Your task to perform on an android device: empty trash in the gmail app Image 0: 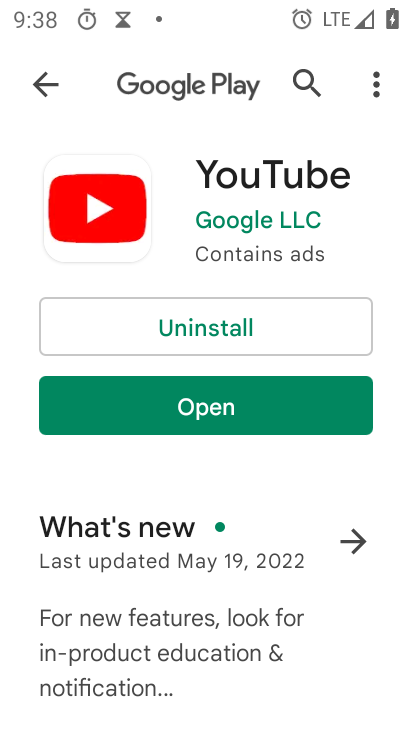
Step 0: press home button
Your task to perform on an android device: empty trash in the gmail app Image 1: 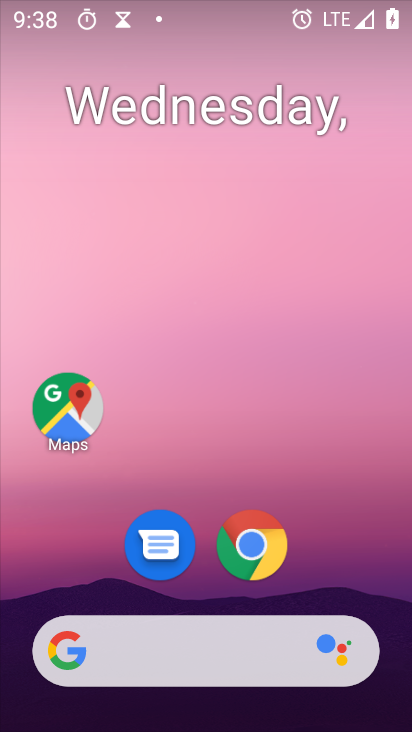
Step 1: drag from (176, 634) to (189, 0)
Your task to perform on an android device: empty trash in the gmail app Image 2: 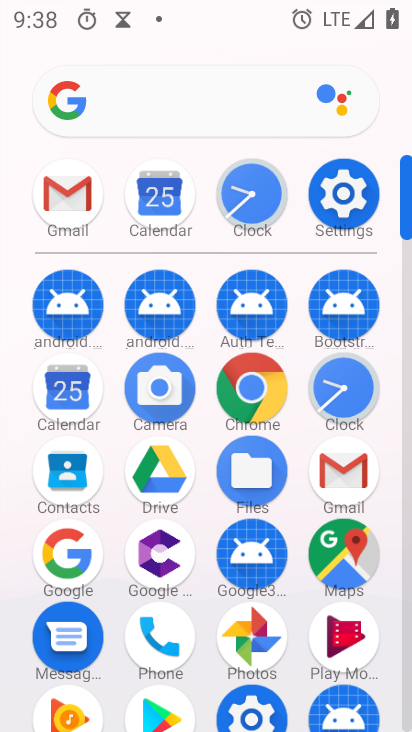
Step 2: click (65, 196)
Your task to perform on an android device: empty trash in the gmail app Image 3: 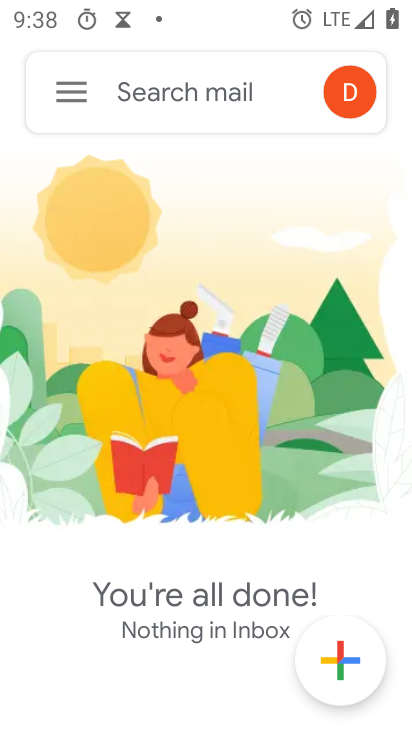
Step 3: click (75, 90)
Your task to perform on an android device: empty trash in the gmail app Image 4: 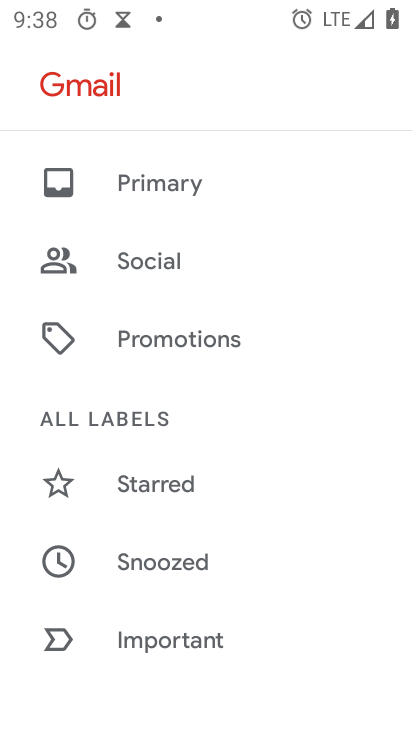
Step 4: drag from (277, 585) to (304, 144)
Your task to perform on an android device: empty trash in the gmail app Image 5: 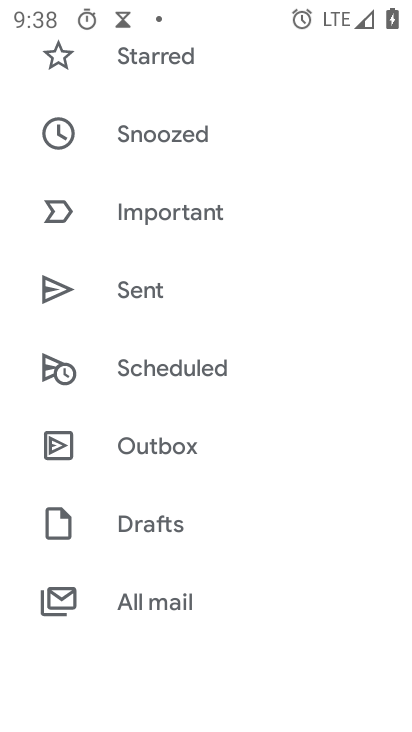
Step 5: drag from (219, 578) to (280, 144)
Your task to perform on an android device: empty trash in the gmail app Image 6: 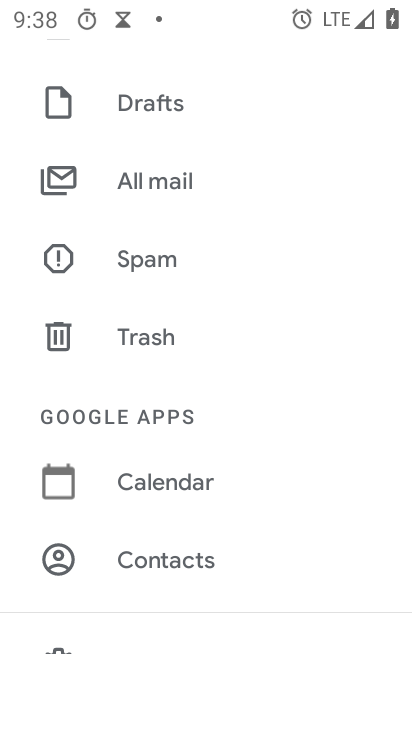
Step 6: click (137, 328)
Your task to perform on an android device: empty trash in the gmail app Image 7: 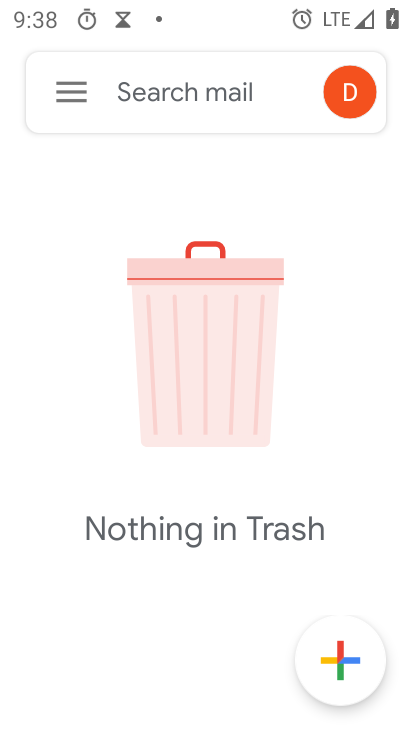
Step 7: task complete